Your task to perform on an android device: clear all cookies in the chrome app Image 0: 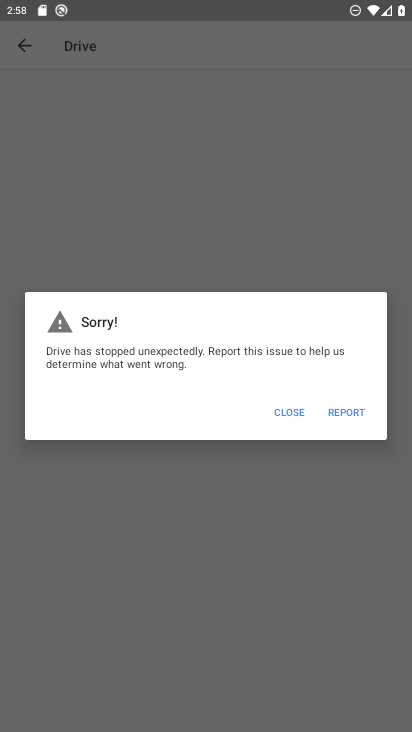
Step 0: press home button
Your task to perform on an android device: clear all cookies in the chrome app Image 1: 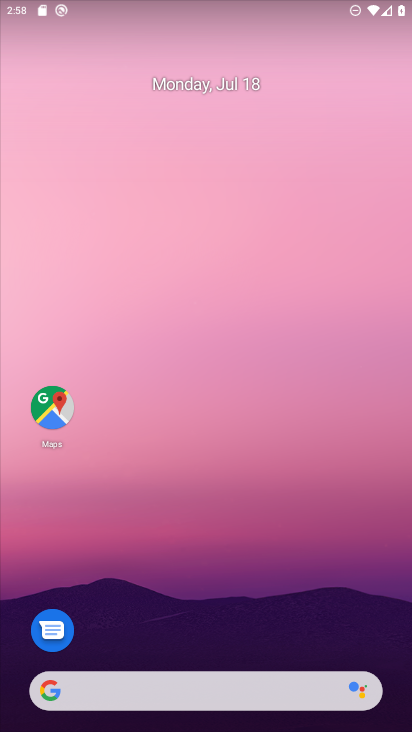
Step 1: drag from (291, 694) to (338, 152)
Your task to perform on an android device: clear all cookies in the chrome app Image 2: 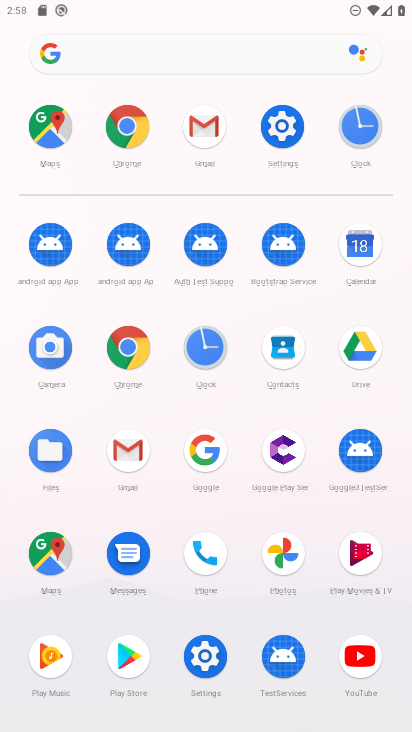
Step 2: click (129, 348)
Your task to perform on an android device: clear all cookies in the chrome app Image 3: 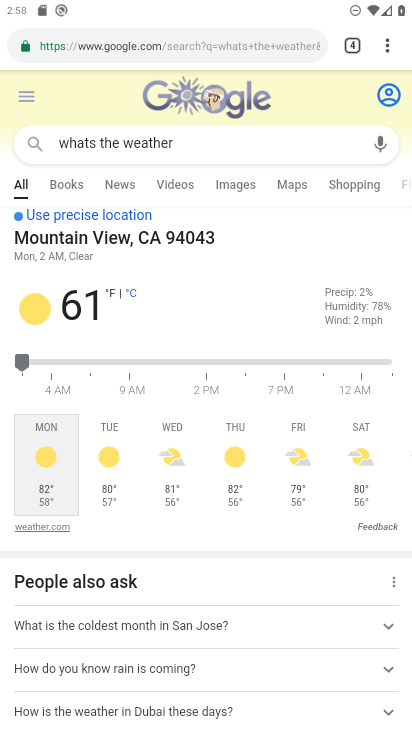
Step 3: click (379, 40)
Your task to perform on an android device: clear all cookies in the chrome app Image 4: 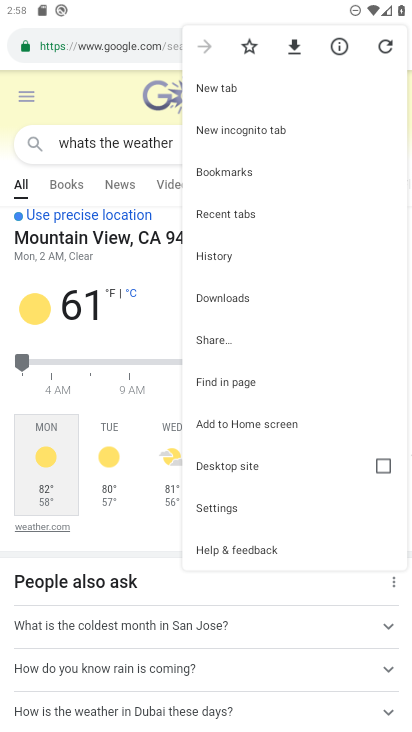
Step 4: click (228, 513)
Your task to perform on an android device: clear all cookies in the chrome app Image 5: 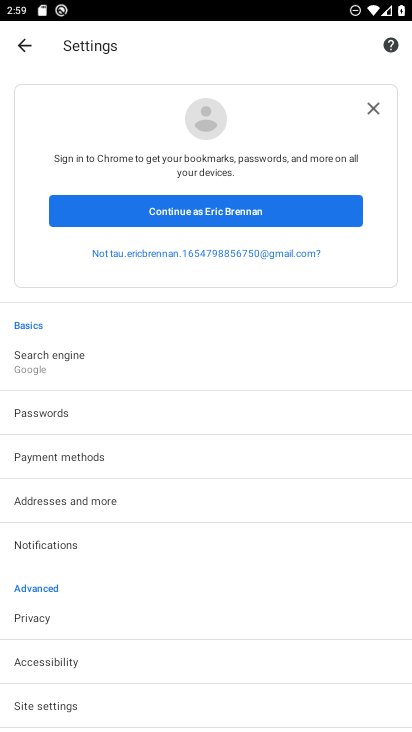
Step 5: click (51, 625)
Your task to perform on an android device: clear all cookies in the chrome app Image 6: 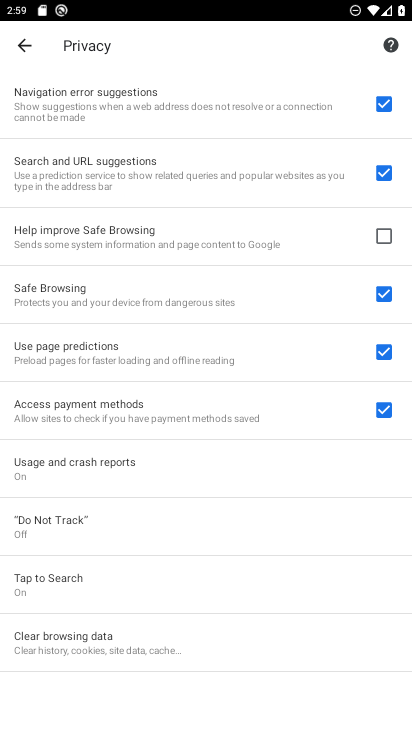
Step 6: drag from (130, 565) to (152, 395)
Your task to perform on an android device: clear all cookies in the chrome app Image 7: 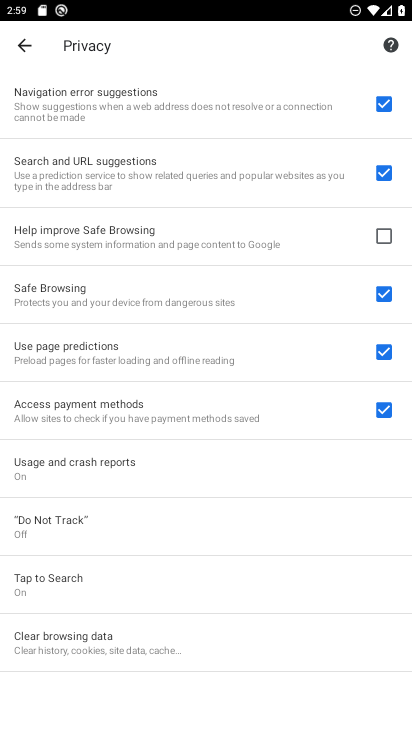
Step 7: click (121, 639)
Your task to perform on an android device: clear all cookies in the chrome app Image 8: 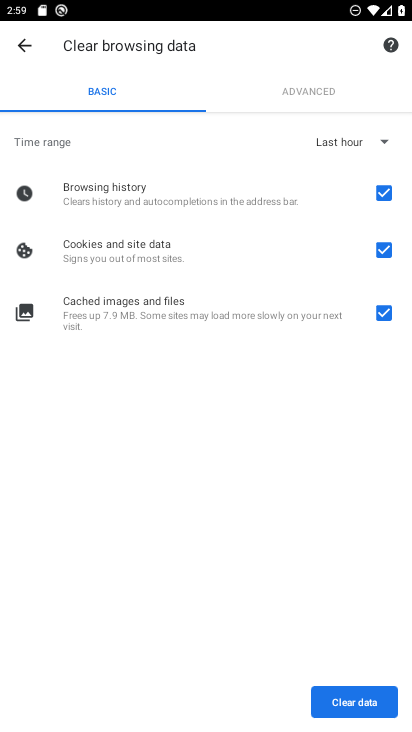
Step 8: click (356, 694)
Your task to perform on an android device: clear all cookies in the chrome app Image 9: 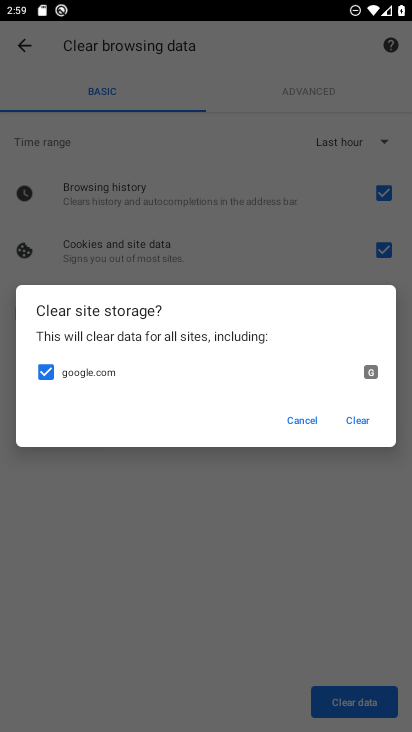
Step 9: click (362, 414)
Your task to perform on an android device: clear all cookies in the chrome app Image 10: 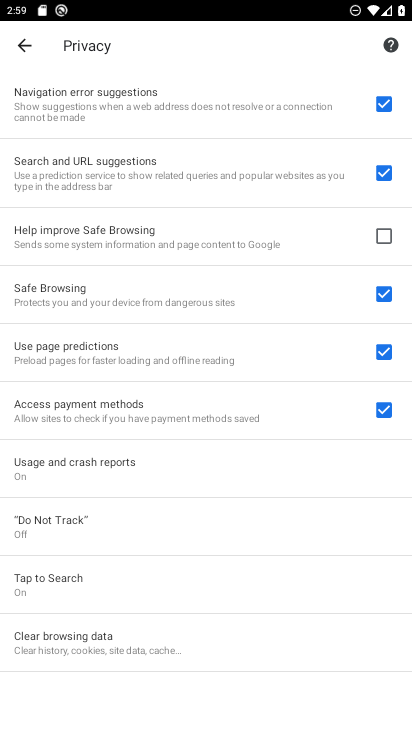
Step 10: task complete